Your task to perform on an android device: open sync settings in chrome Image 0: 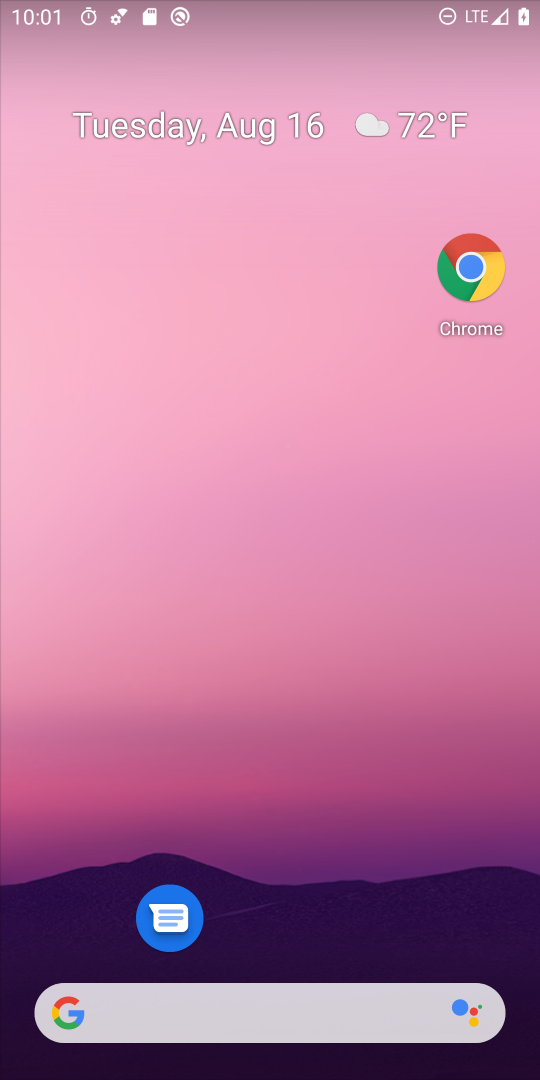
Step 0: drag from (253, 871) to (265, 127)
Your task to perform on an android device: open sync settings in chrome Image 1: 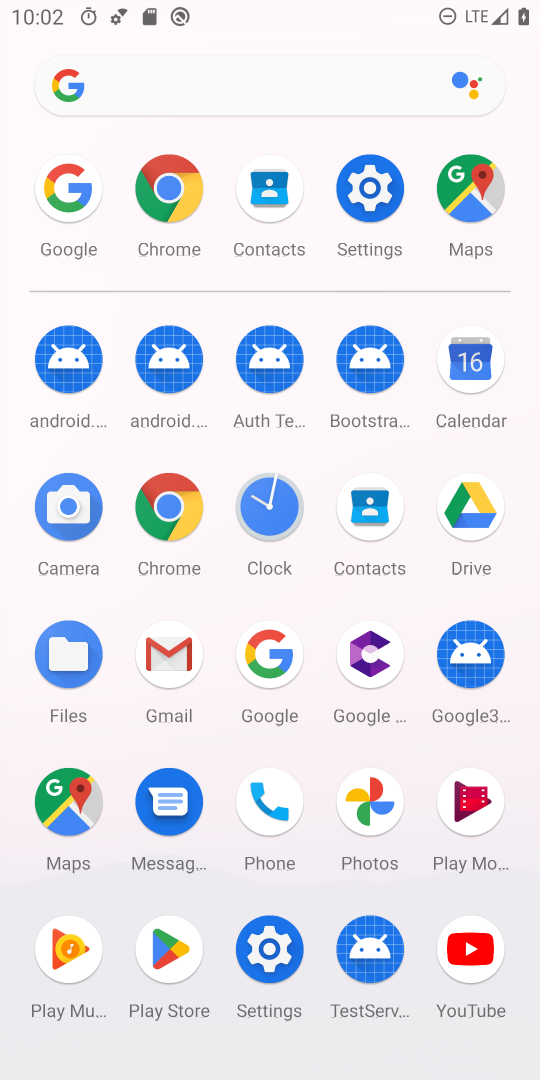
Step 1: click (161, 234)
Your task to perform on an android device: open sync settings in chrome Image 2: 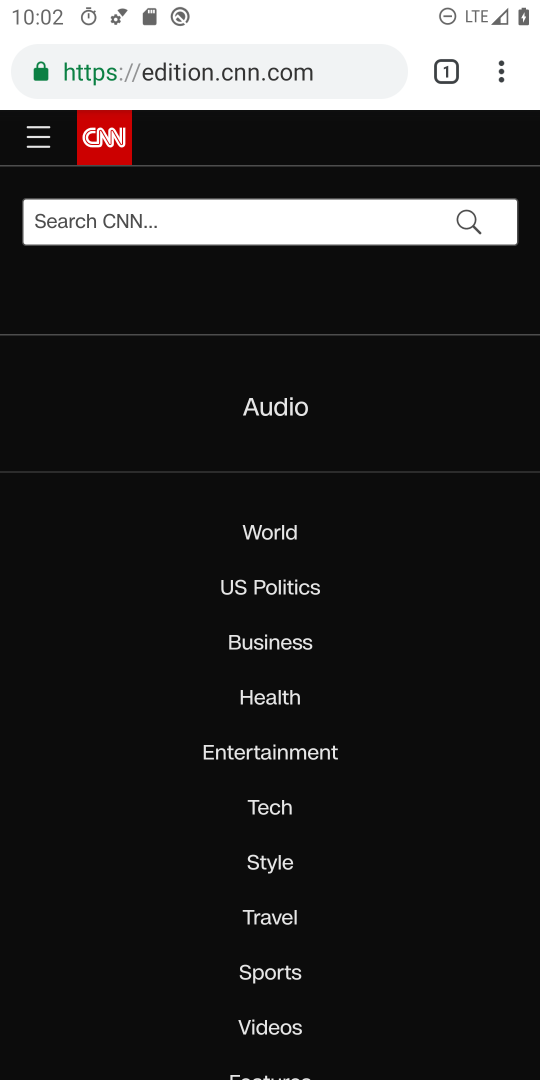
Step 2: click (501, 77)
Your task to perform on an android device: open sync settings in chrome Image 3: 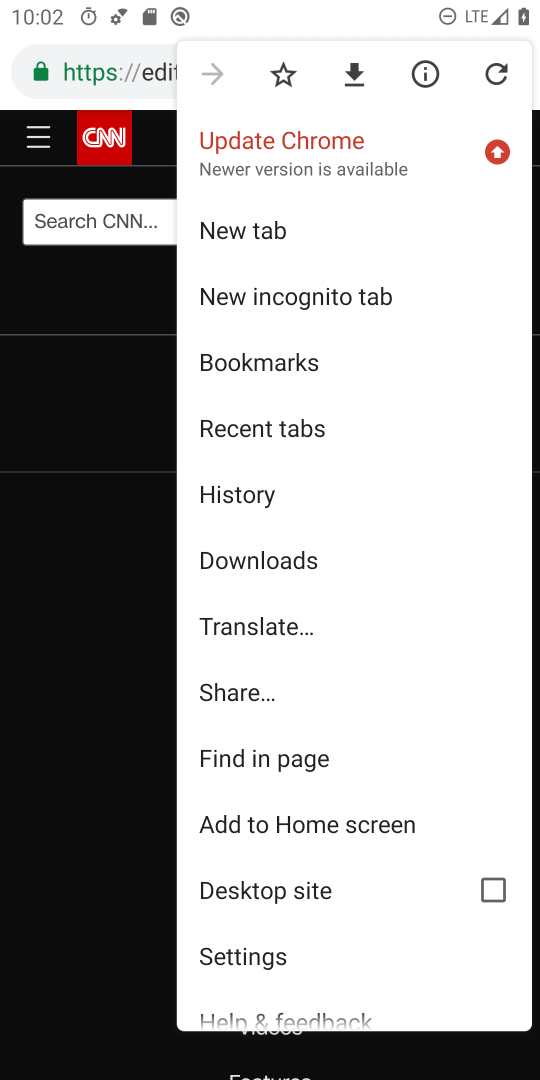
Step 3: click (264, 943)
Your task to perform on an android device: open sync settings in chrome Image 4: 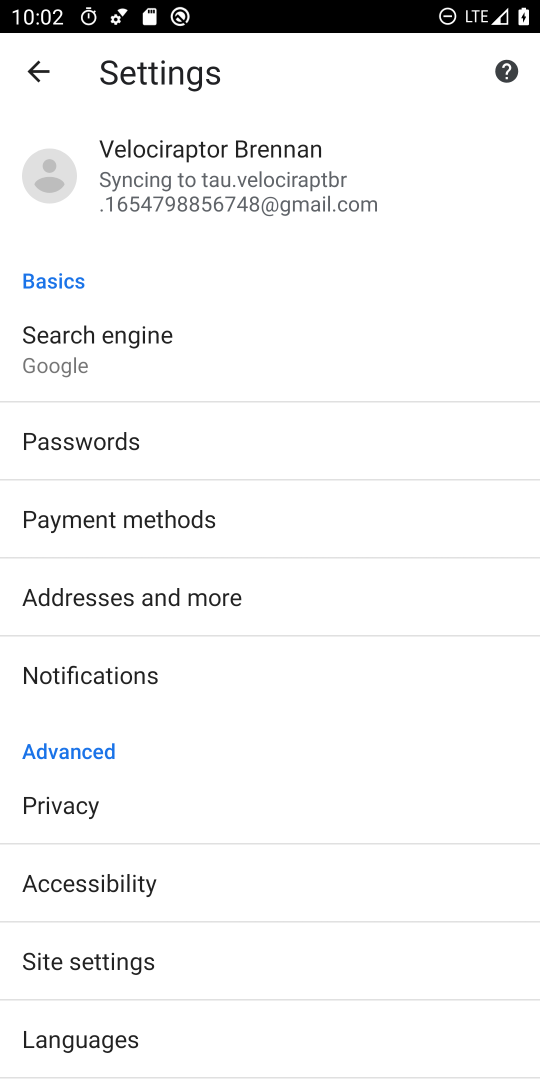
Step 4: click (284, 197)
Your task to perform on an android device: open sync settings in chrome Image 5: 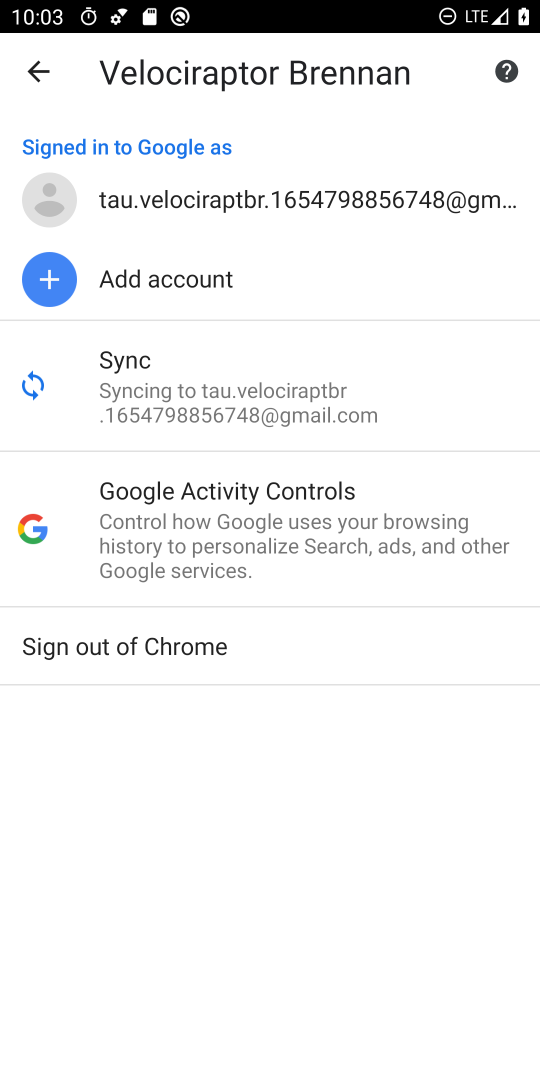
Step 5: click (316, 395)
Your task to perform on an android device: open sync settings in chrome Image 6: 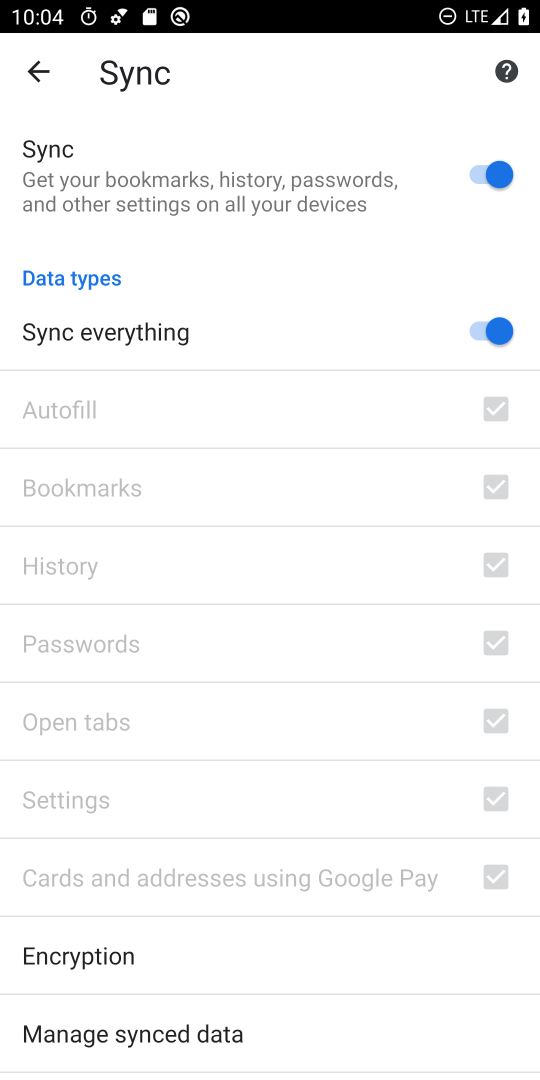
Step 6: task complete